Your task to perform on an android device: change text size in settings app Image 0: 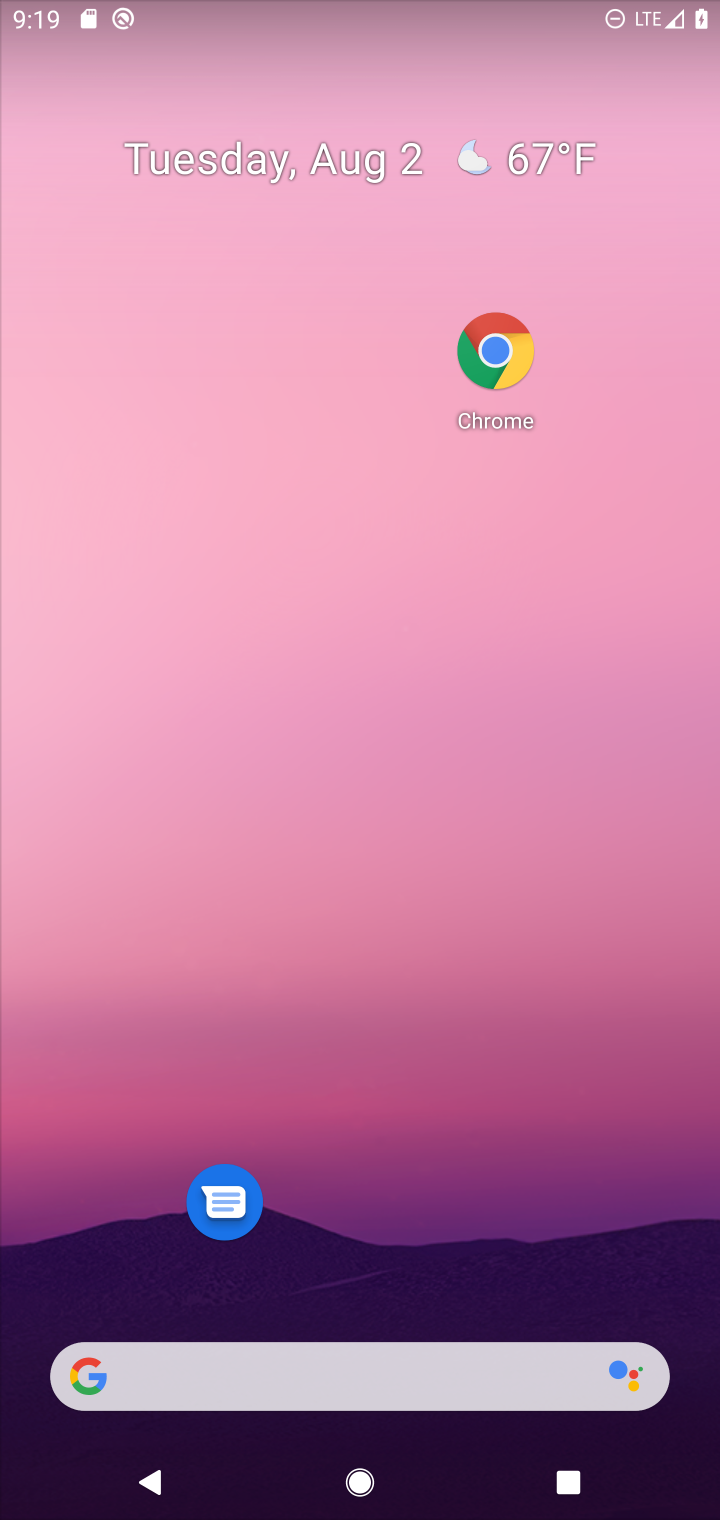
Step 0: drag from (362, 801) to (289, 30)
Your task to perform on an android device: change text size in settings app Image 1: 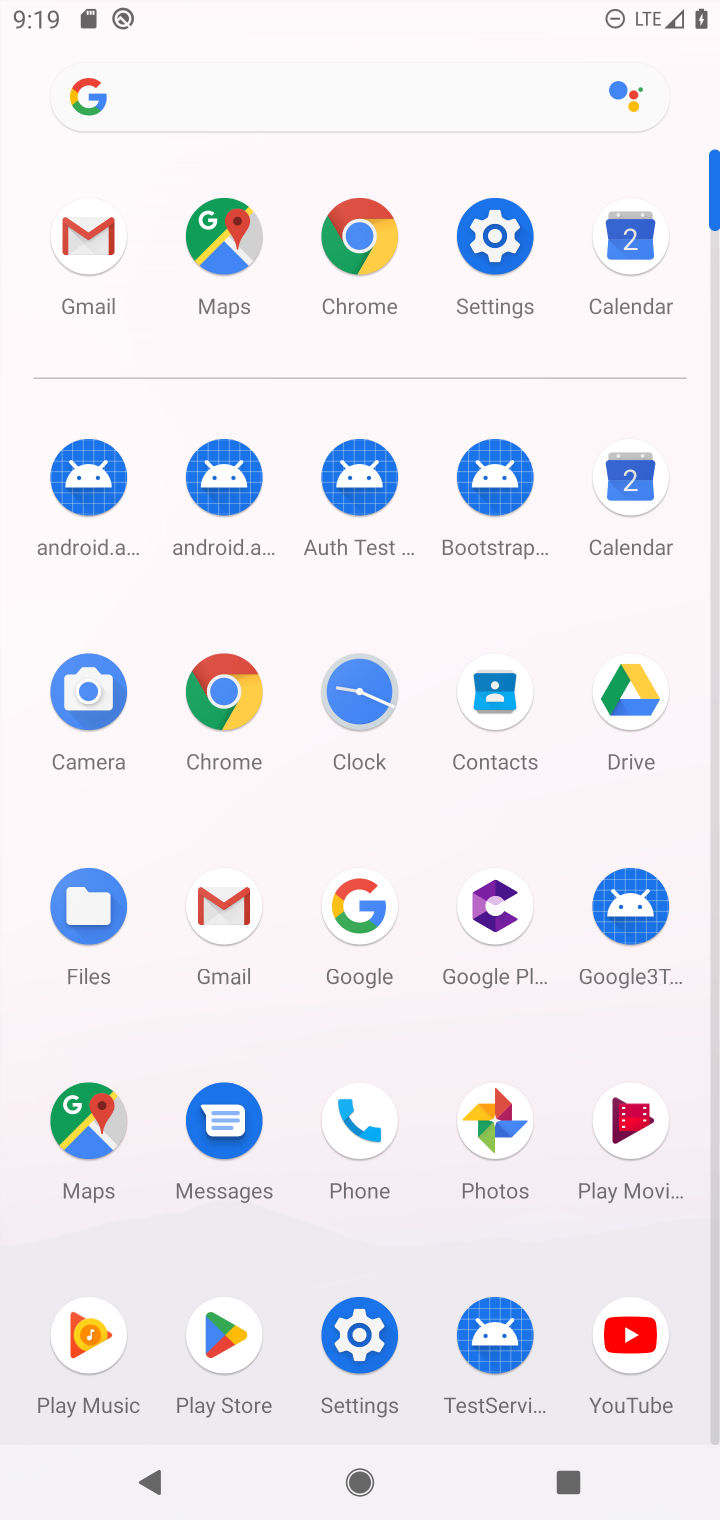
Step 1: click (506, 259)
Your task to perform on an android device: change text size in settings app Image 2: 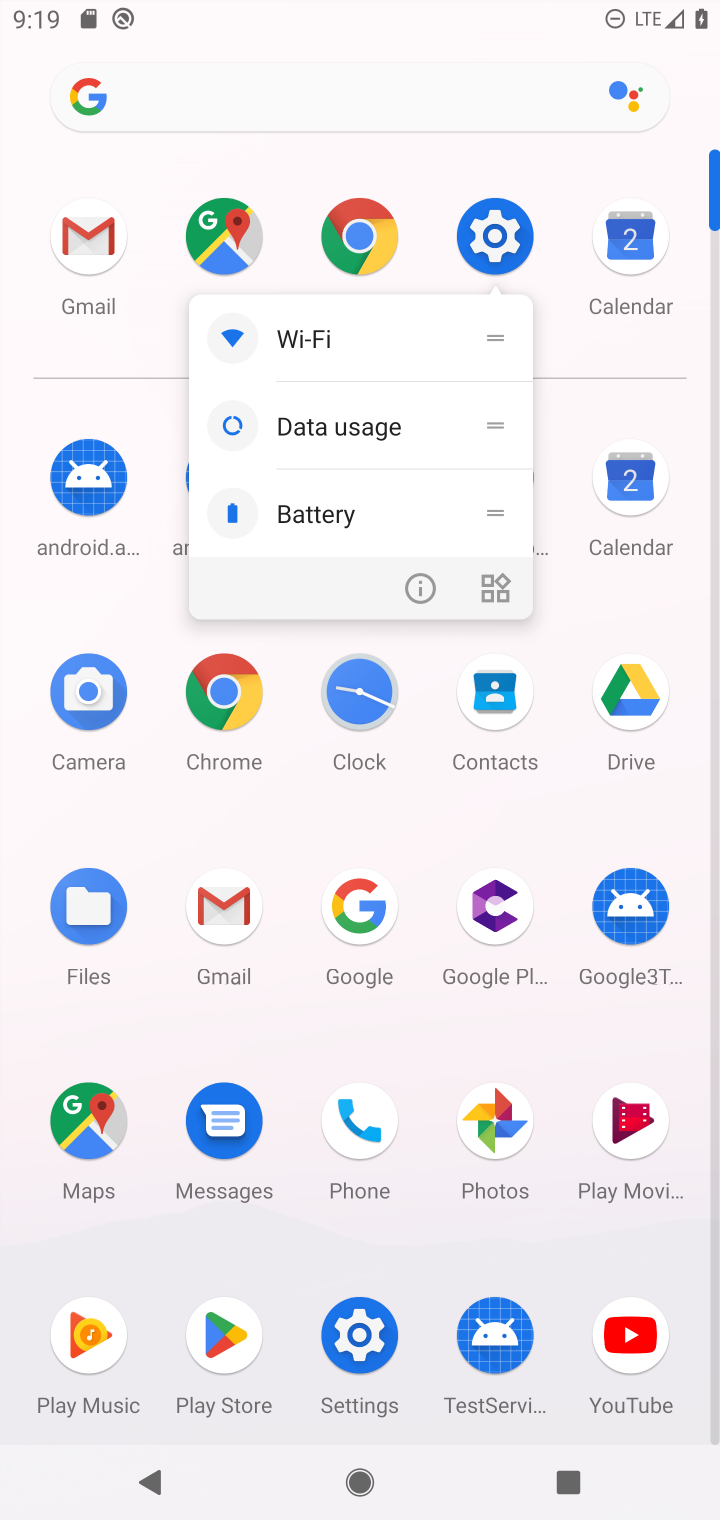
Step 2: click (492, 251)
Your task to perform on an android device: change text size in settings app Image 3: 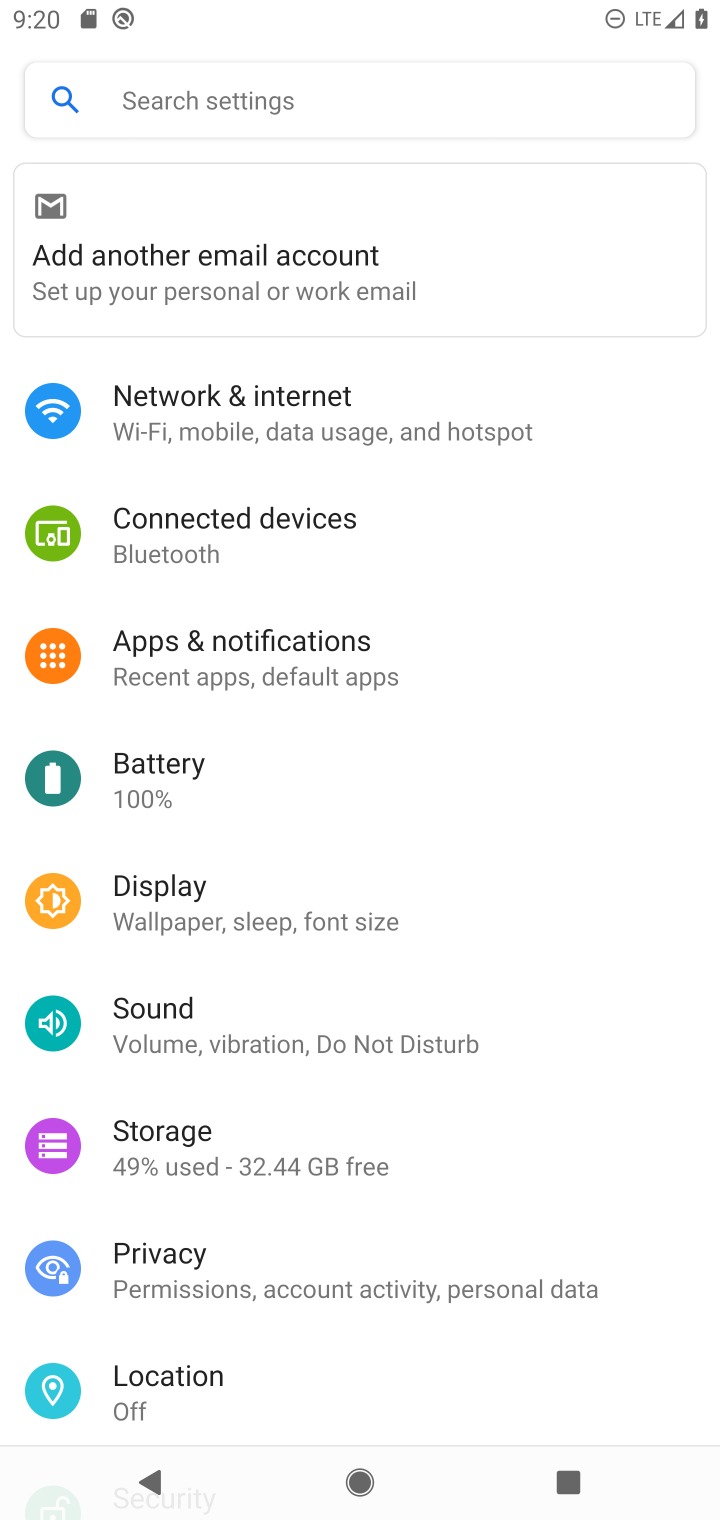
Step 3: click (148, 897)
Your task to perform on an android device: change text size in settings app Image 4: 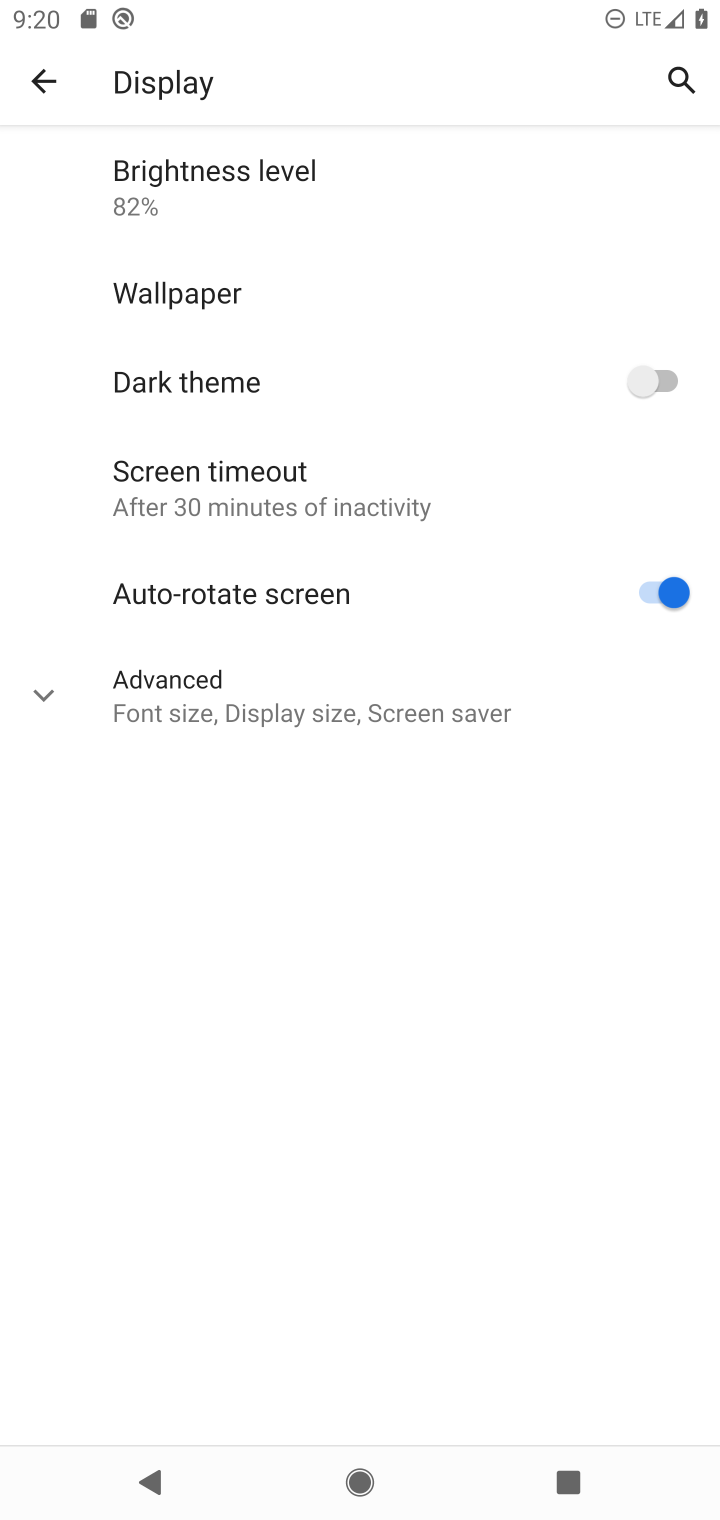
Step 4: click (41, 713)
Your task to perform on an android device: change text size in settings app Image 5: 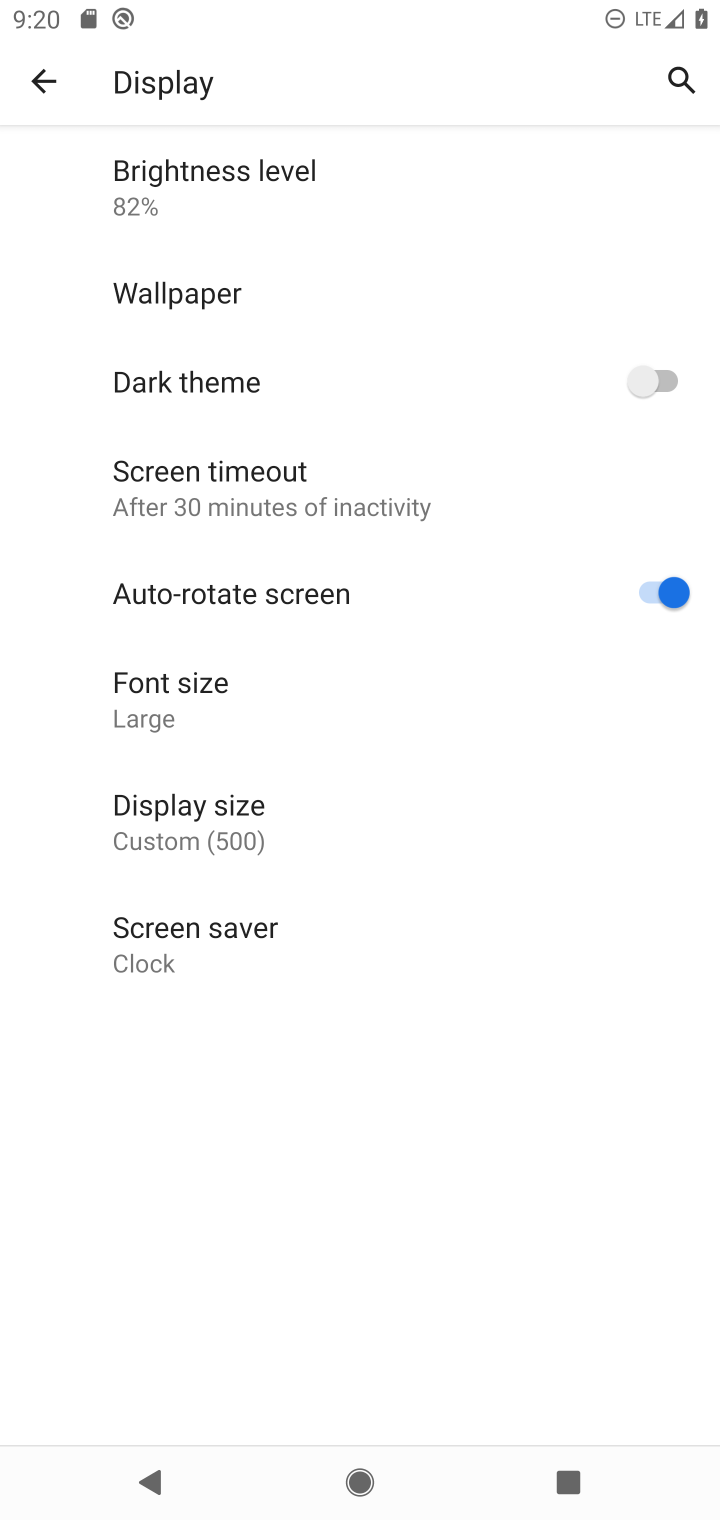
Step 5: click (143, 698)
Your task to perform on an android device: change text size in settings app Image 6: 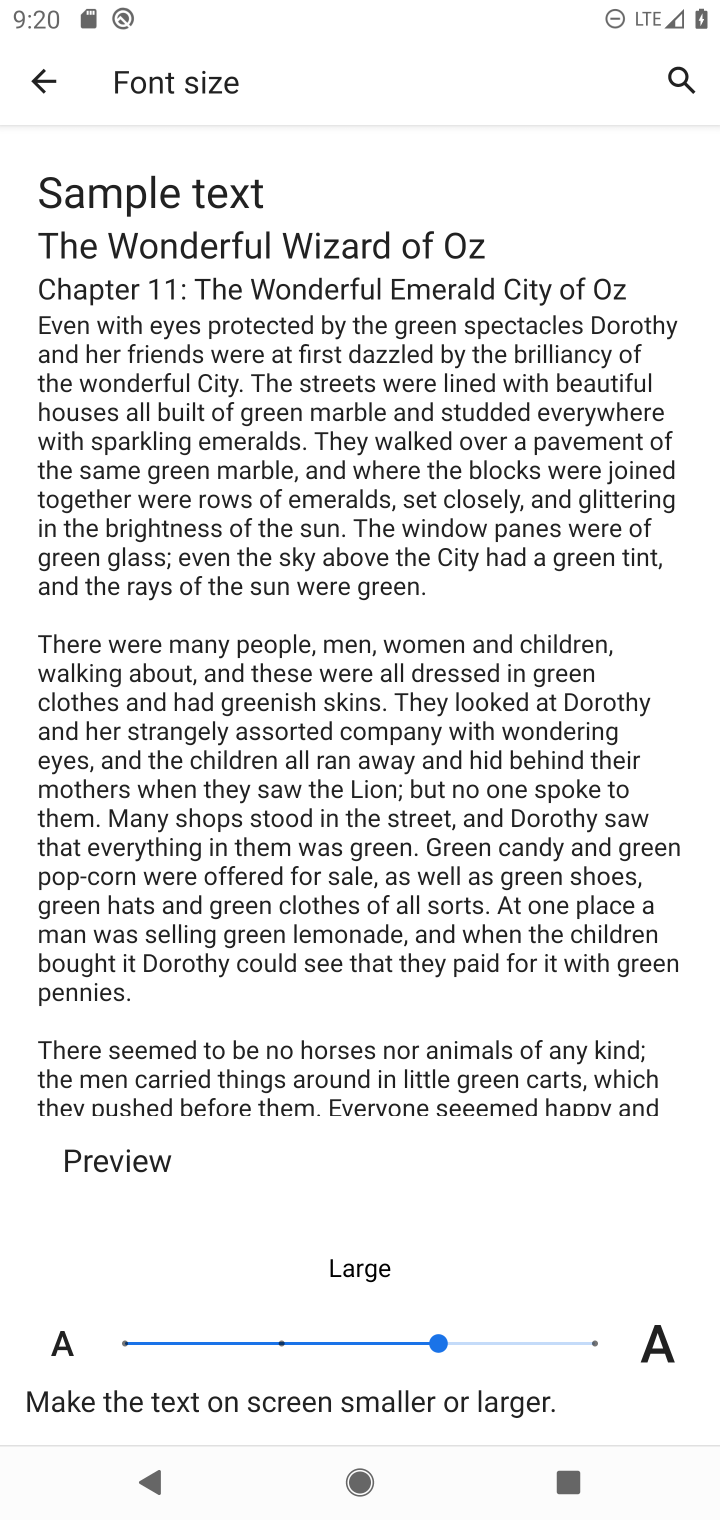
Step 6: click (588, 1340)
Your task to perform on an android device: change text size in settings app Image 7: 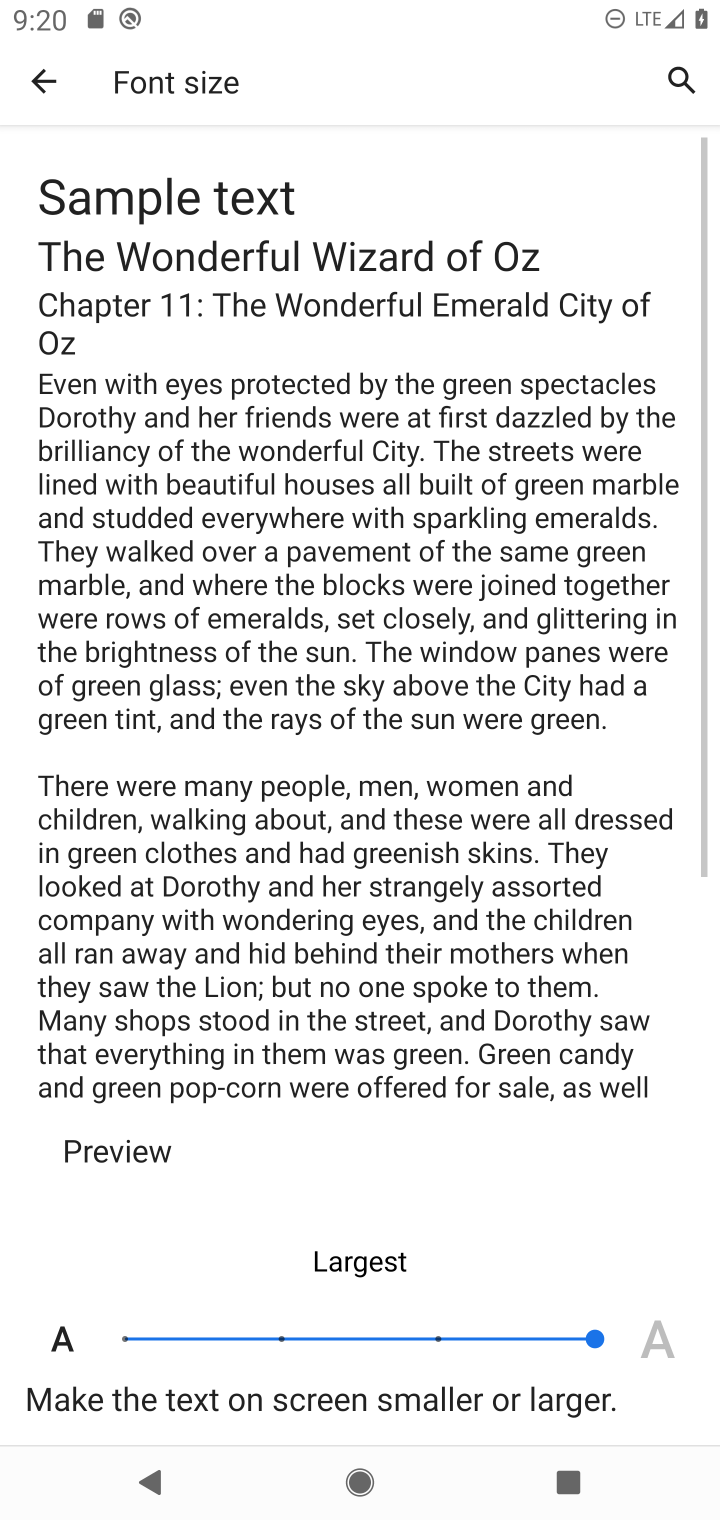
Step 7: task complete